Your task to perform on an android device: Do I have any events today? Image 0: 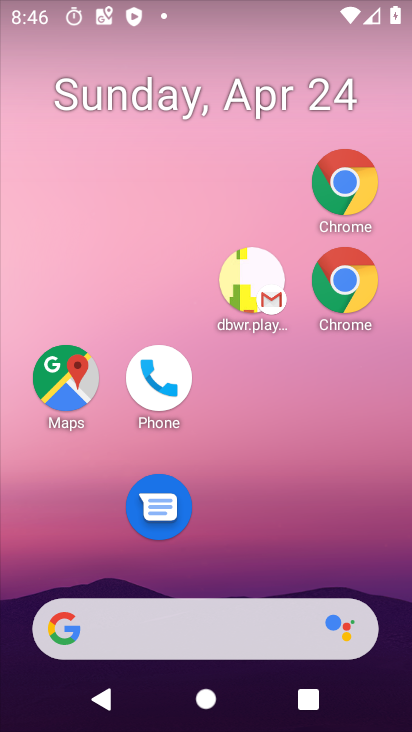
Step 0: drag from (239, 575) to (194, 44)
Your task to perform on an android device: Do I have any events today? Image 1: 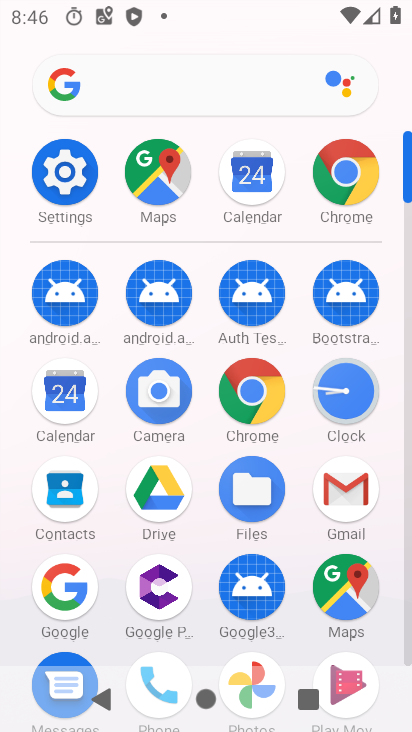
Step 1: click (58, 404)
Your task to perform on an android device: Do I have any events today? Image 2: 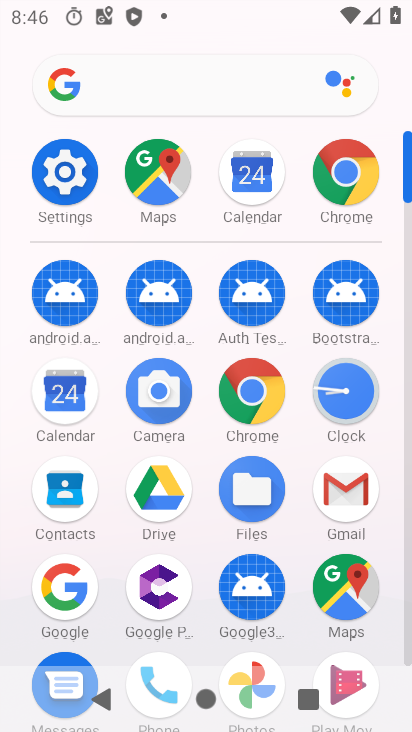
Step 2: click (57, 403)
Your task to perform on an android device: Do I have any events today? Image 3: 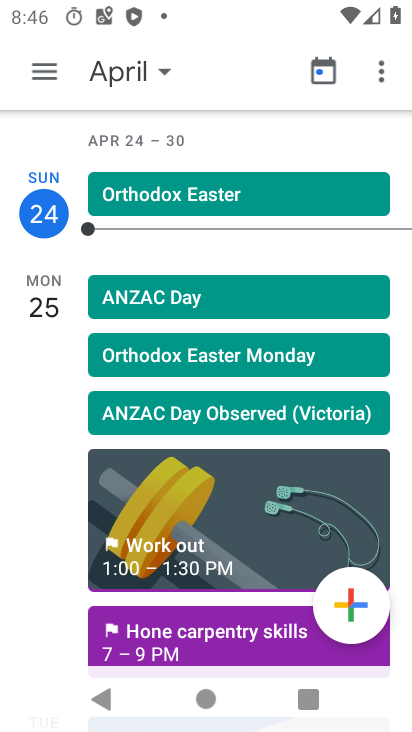
Step 3: click (157, 70)
Your task to perform on an android device: Do I have any events today? Image 4: 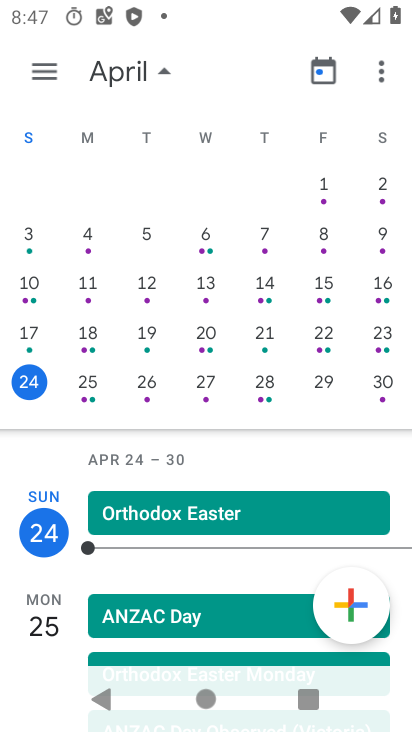
Step 4: drag from (180, 530) to (134, 140)
Your task to perform on an android device: Do I have any events today? Image 5: 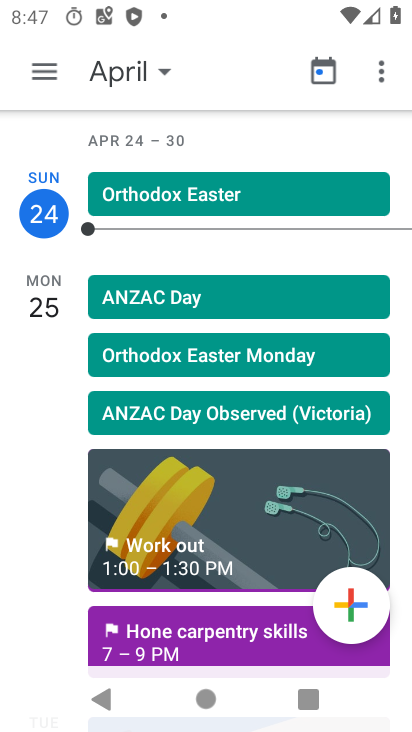
Step 5: drag from (239, 465) to (211, 70)
Your task to perform on an android device: Do I have any events today? Image 6: 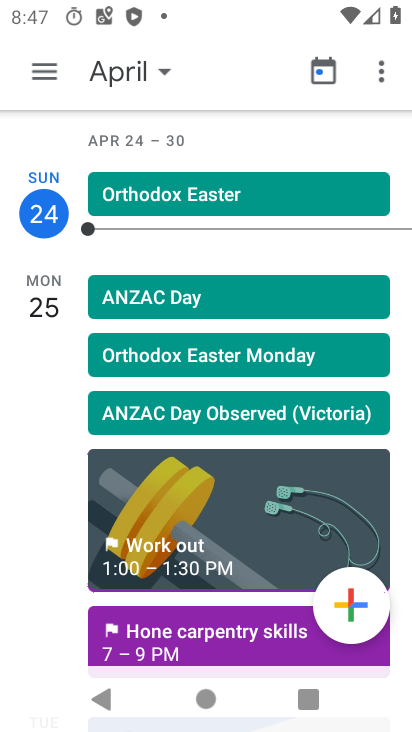
Step 6: drag from (219, 479) to (189, 20)
Your task to perform on an android device: Do I have any events today? Image 7: 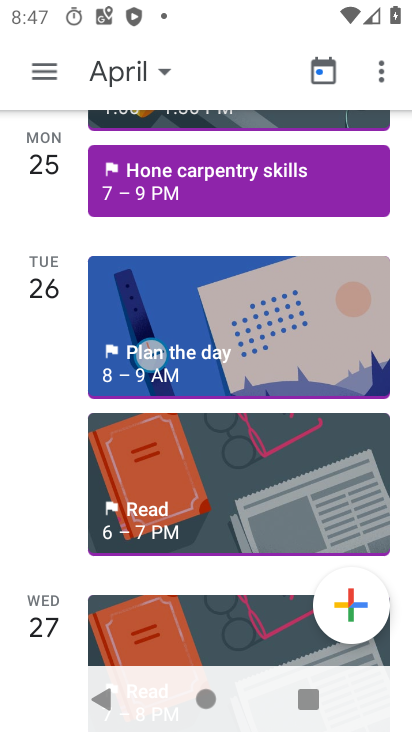
Step 7: drag from (163, 534) to (176, 63)
Your task to perform on an android device: Do I have any events today? Image 8: 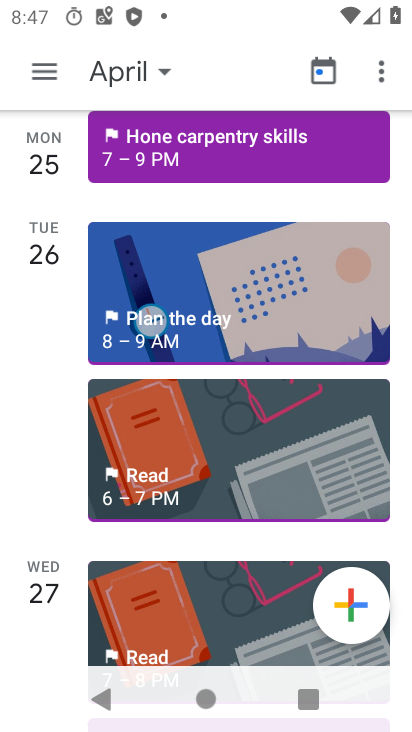
Step 8: drag from (177, 330) to (169, 6)
Your task to perform on an android device: Do I have any events today? Image 9: 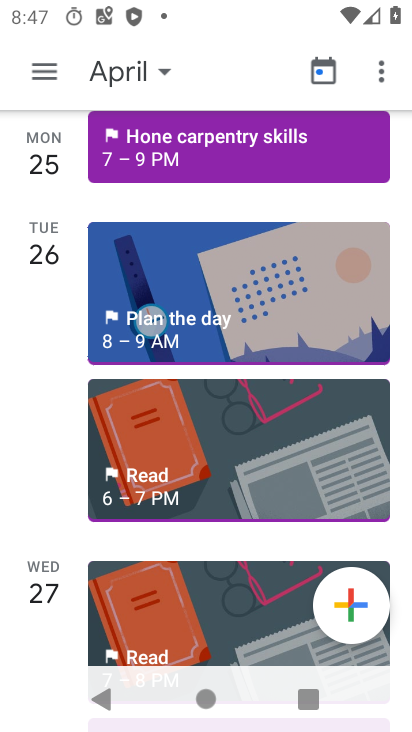
Step 9: drag from (160, 546) to (175, 173)
Your task to perform on an android device: Do I have any events today? Image 10: 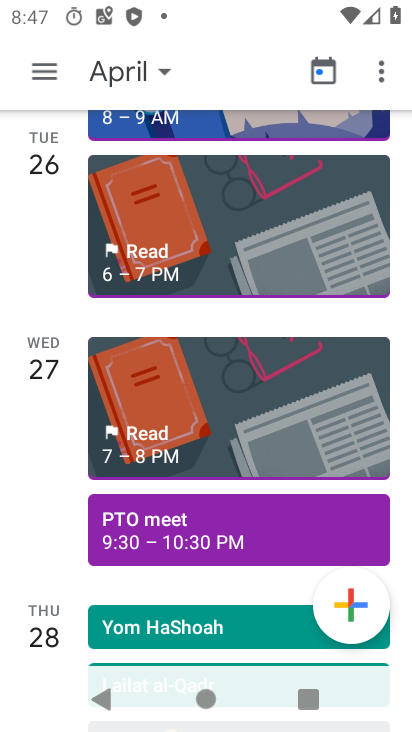
Step 10: drag from (184, 564) to (163, 17)
Your task to perform on an android device: Do I have any events today? Image 11: 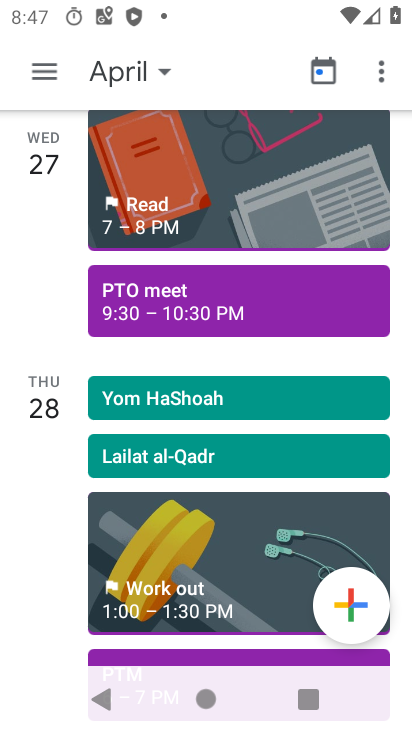
Step 11: drag from (201, 476) to (113, 2)
Your task to perform on an android device: Do I have any events today? Image 12: 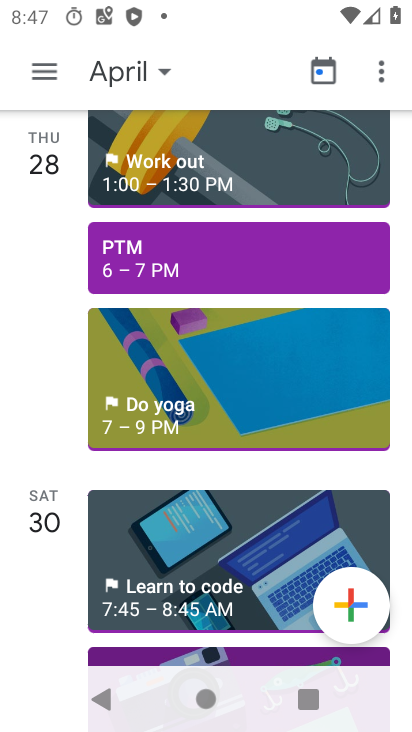
Step 12: drag from (150, 524) to (178, 43)
Your task to perform on an android device: Do I have any events today? Image 13: 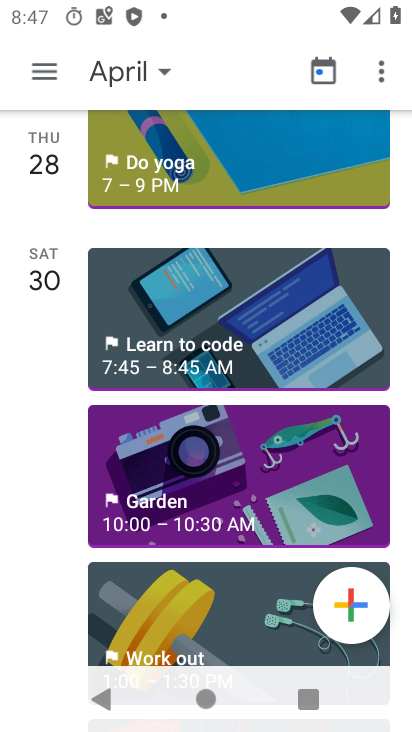
Step 13: drag from (220, 507) to (140, 55)
Your task to perform on an android device: Do I have any events today? Image 14: 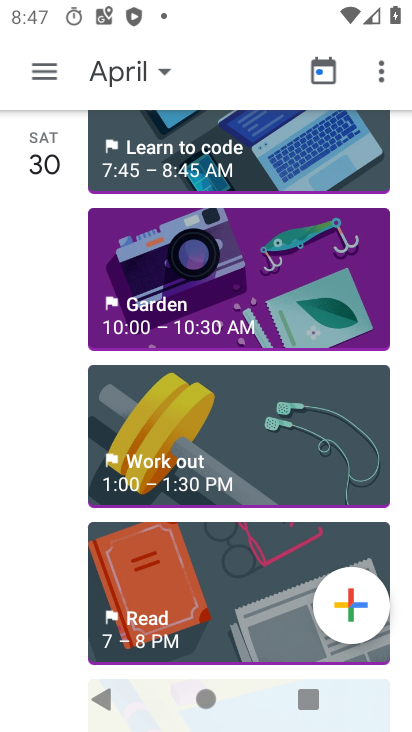
Step 14: drag from (178, 546) to (139, 44)
Your task to perform on an android device: Do I have any events today? Image 15: 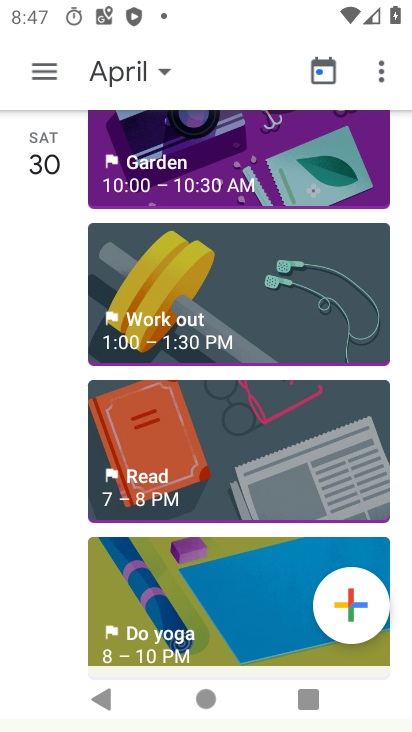
Step 15: drag from (212, 383) to (130, 11)
Your task to perform on an android device: Do I have any events today? Image 16: 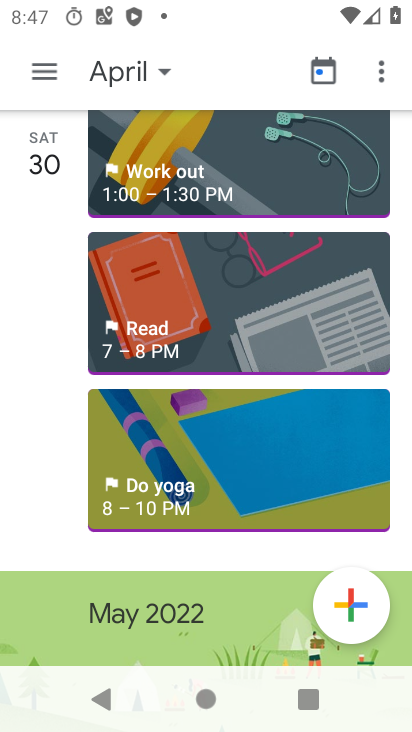
Step 16: drag from (185, 413) to (149, 27)
Your task to perform on an android device: Do I have any events today? Image 17: 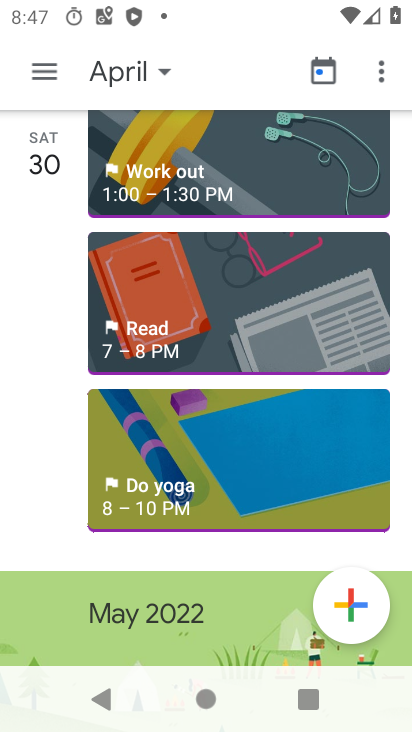
Step 17: drag from (184, 383) to (192, 39)
Your task to perform on an android device: Do I have any events today? Image 18: 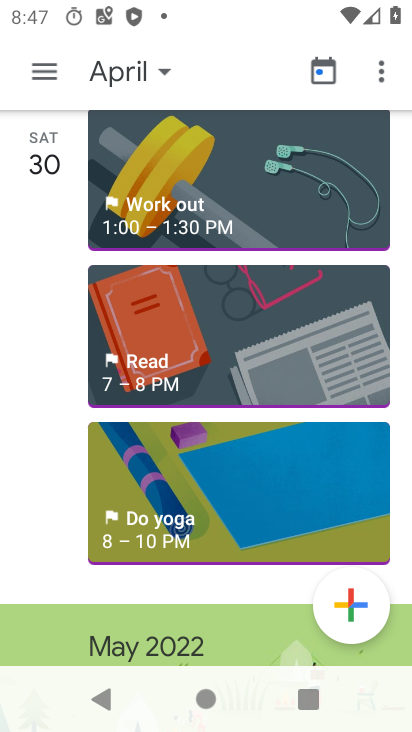
Step 18: drag from (170, 401) to (145, 154)
Your task to perform on an android device: Do I have any events today? Image 19: 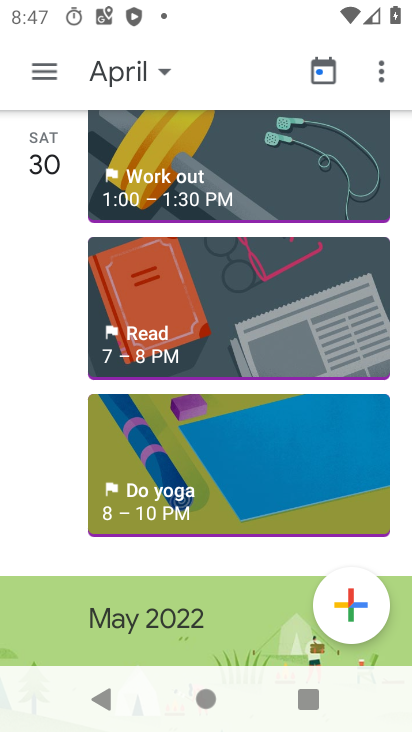
Step 19: drag from (172, 205) to (158, 28)
Your task to perform on an android device: Do I have any events today? Image 20: 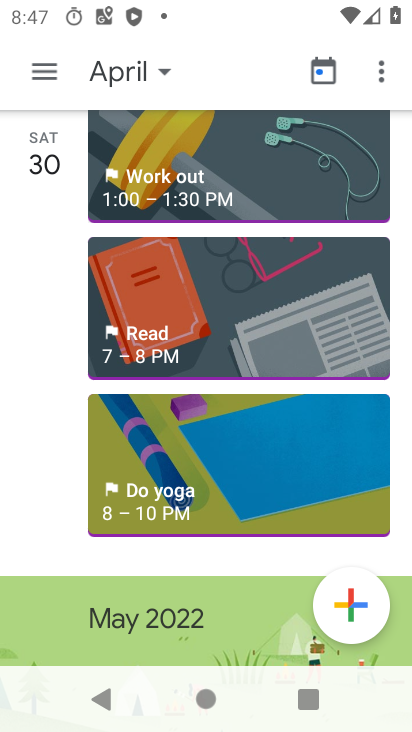
Step 20: drag from (150, 432) to (149, 35)
Your task to perform on an android device: Do I have any events today? Image 21: 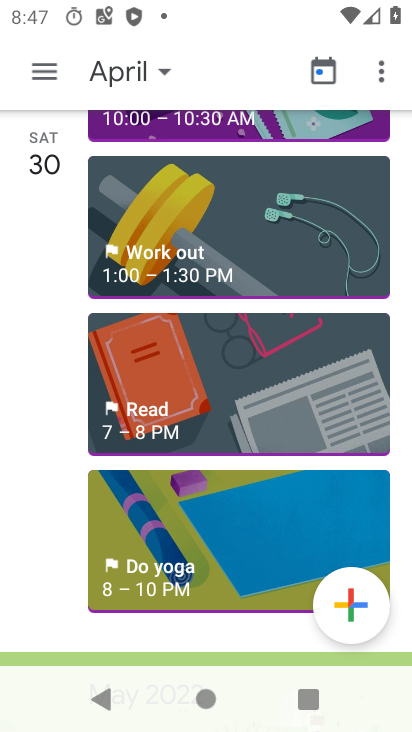
Step 21: click (188, 91)
Your task to perform on an android device: Do I have any events today? Image 22: 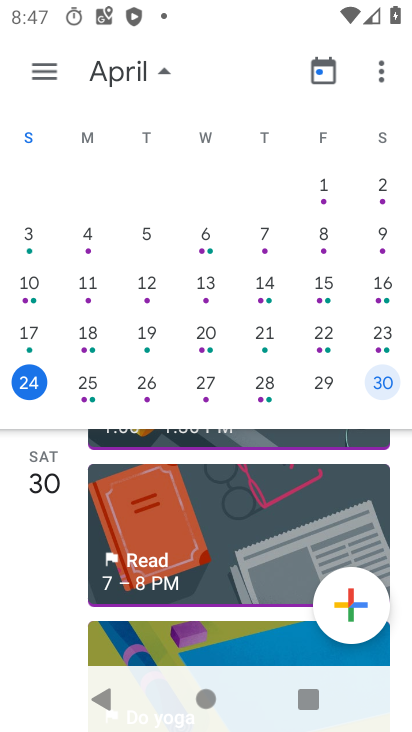
Step 22: task complete